Your task to perform on an android device: Open Chrome and go to settings Image 0: 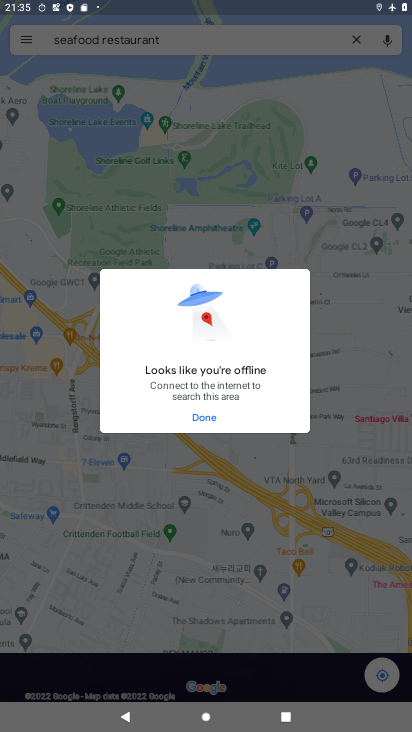
Step 0: click (202, 192)
Your task to perform on an android device: Open Chrome and go to settings Image 1: 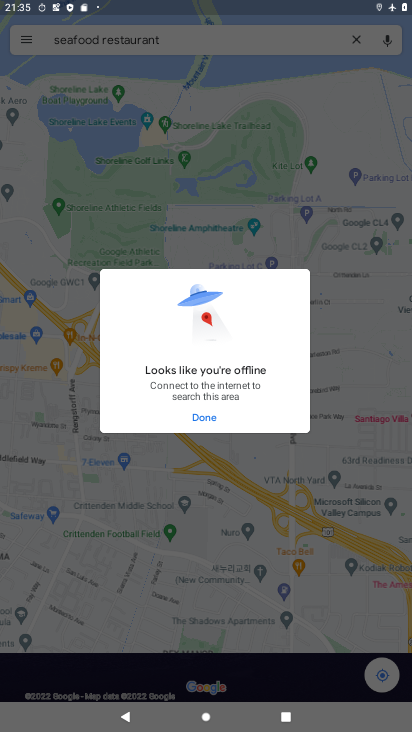
Step 1: drag from (197, 103) to (258, 89)
Your task to perform on an android device: Open Chrome and go to settings Image 2: 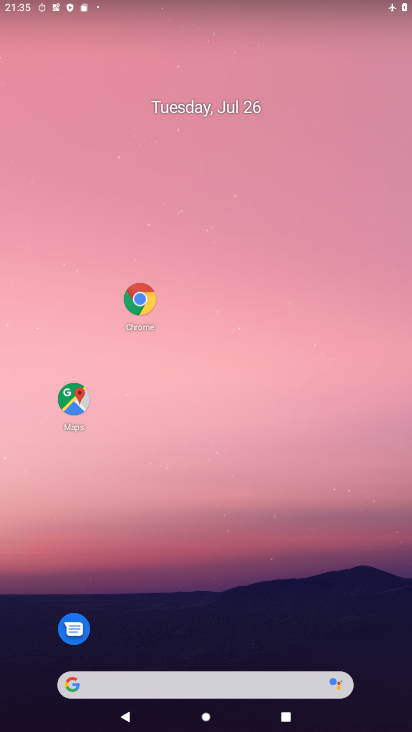
Step 2: click (231, 203)
Your task to perform on an android device: Open Chrome and go to settings Image 3: 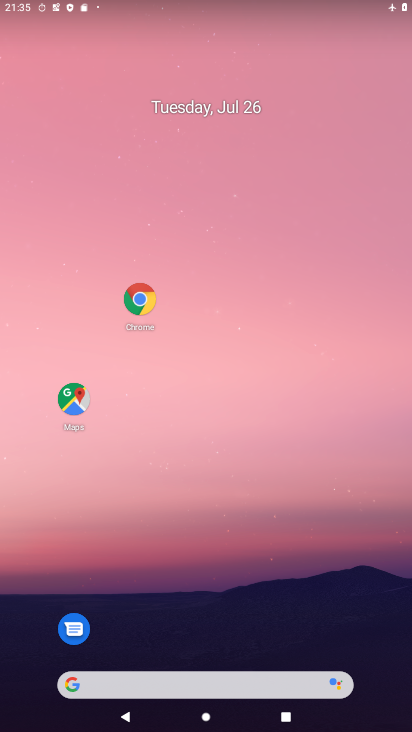
Step 3: drag from (147, 182) to (155, 35)
Your task to perform on an android device: Open Chrome and go to settings Image 4: 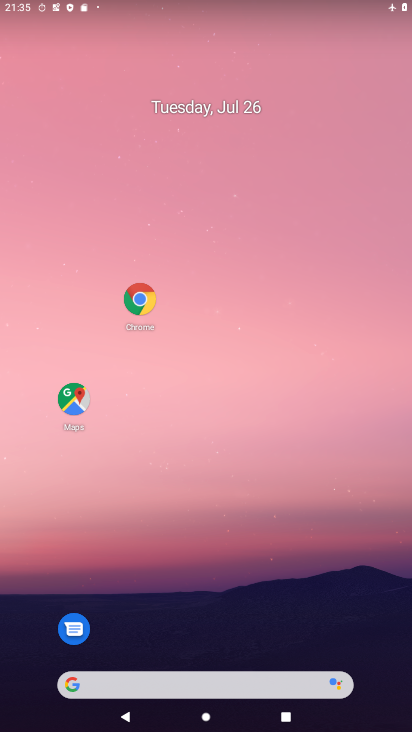
Step 4: drag from (234, 117) to (234, 50)
Your task to perform on an android device: Open Chrome and go to settings Image 5: 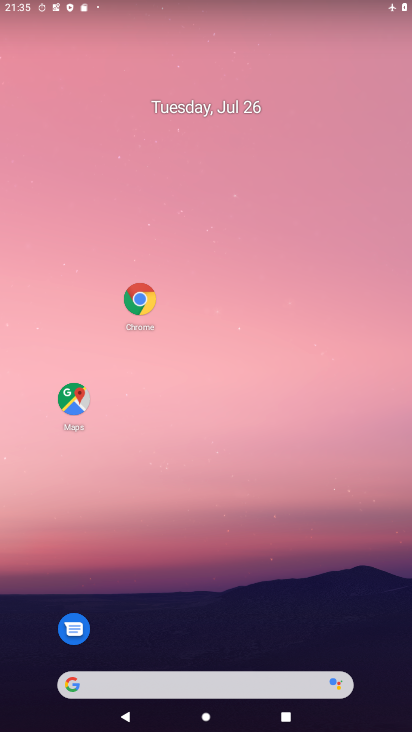
Step 5: click (185, 144)
Your task to perform on an android device: Open Chrome and go to settings Image 6: 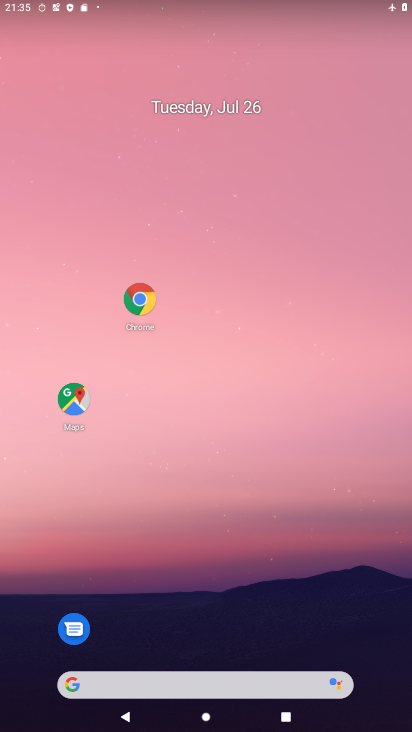
Step 6: drag from (215, 236) to (202, 36)
Your task to perform on an android device: Open Chrome and go to settings Image 7: 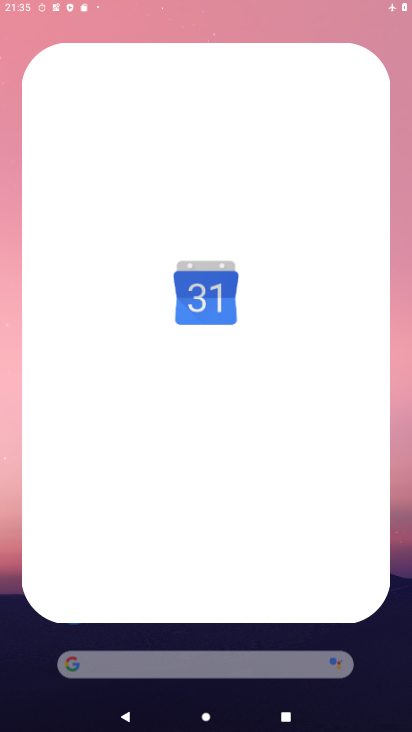
Step 7: drag from (247, 98) to (242, 25)
Your task to perform on an android device: Open Chrome and go to settings Image 8: 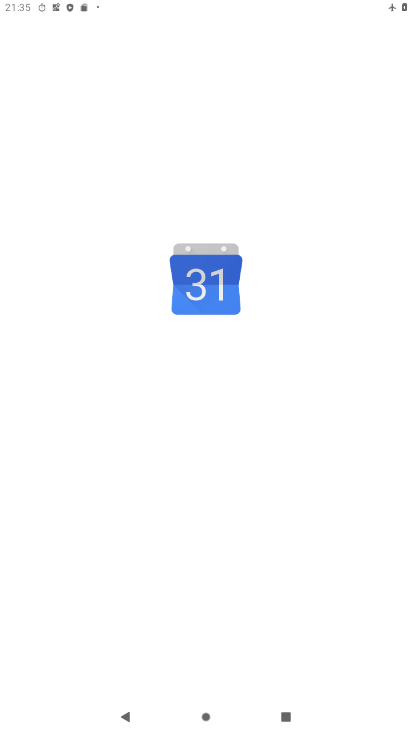
Step 8: drag from (221, 281) to (187, 30)
Your task to perform on an android device: Open Chrome and go to settings Image 9: 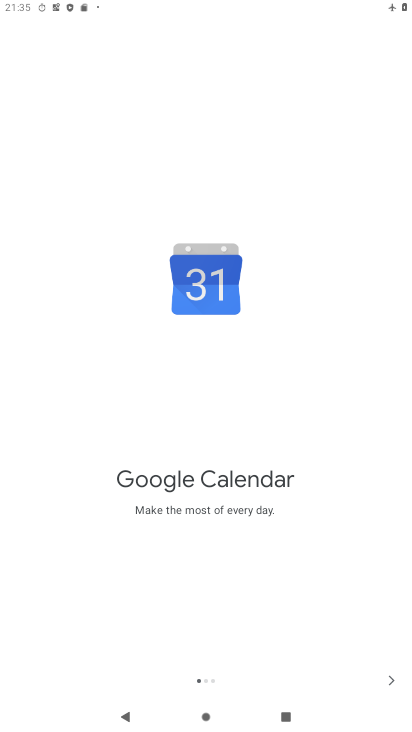
Step 9: press back button
Your task to perform on an android device: Open Chrome and go to settings Image 10: 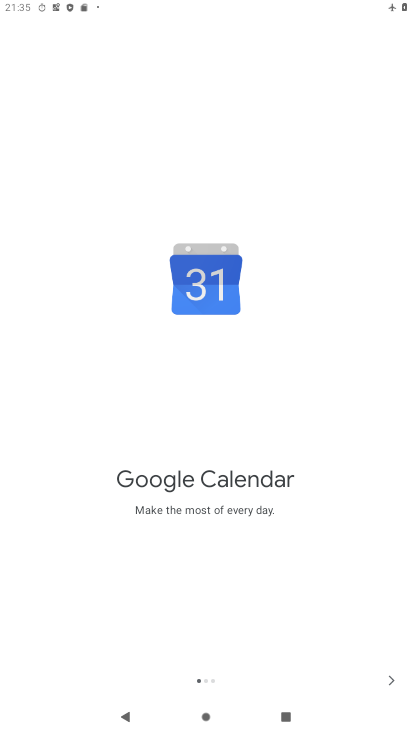
Step 10: press back button
Your task to perform on an android device: Open Chrome and go to settings Image 11: 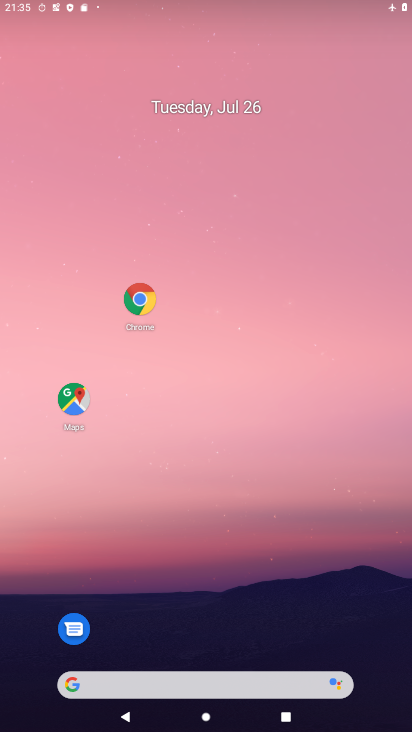
Step 11: click (383, 689)
Your task to perform on an android device: Open Chrome and go to settings Image 12: 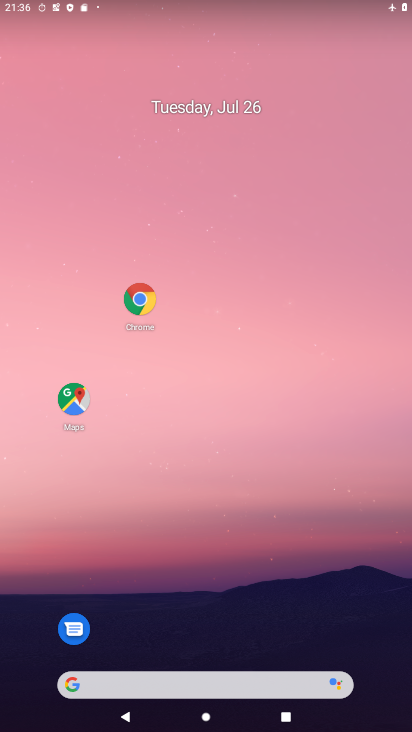
Step 12: click (383, 689)
Your task to perform on an android device: Open Chrome and go to settings Image 13: 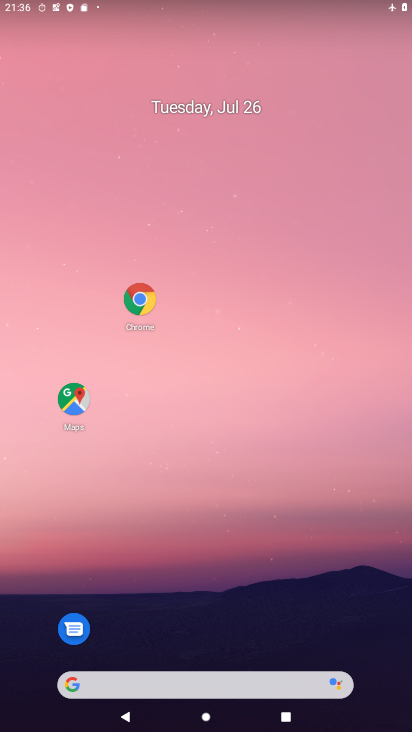
Step 13: click (383, 689)
Your task to perform on an android device: Open Chrome and go to settings Image 14: 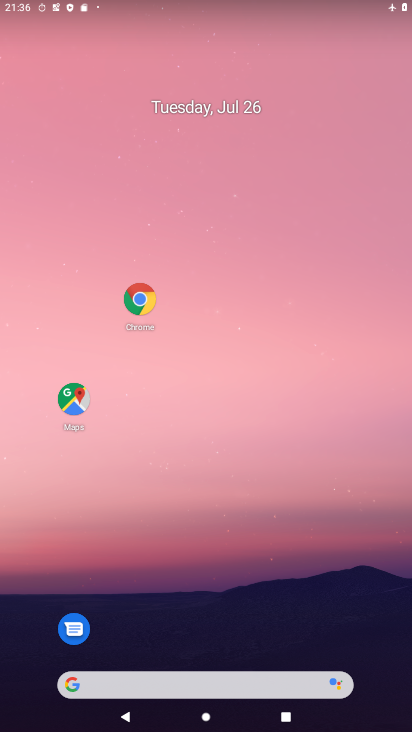
Step 14: drag from (107, 199) to (97, 73)
Your task to perform on an android device: Open Chrome and go to settings Image 15: 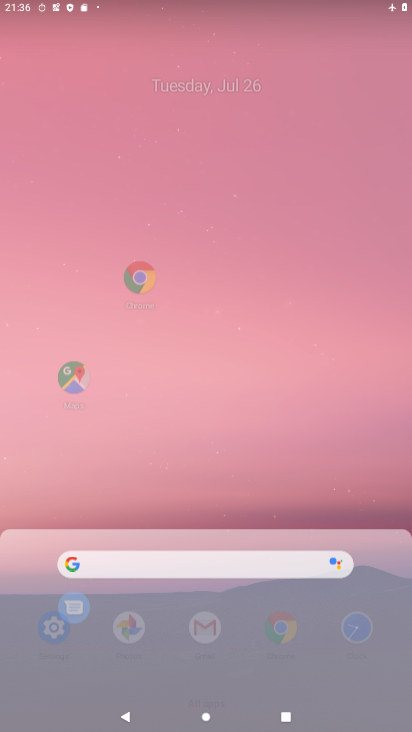
Step 15: click (206, 155)
Your task to perform on an android device: Open Chrome and go to settings Image 16: 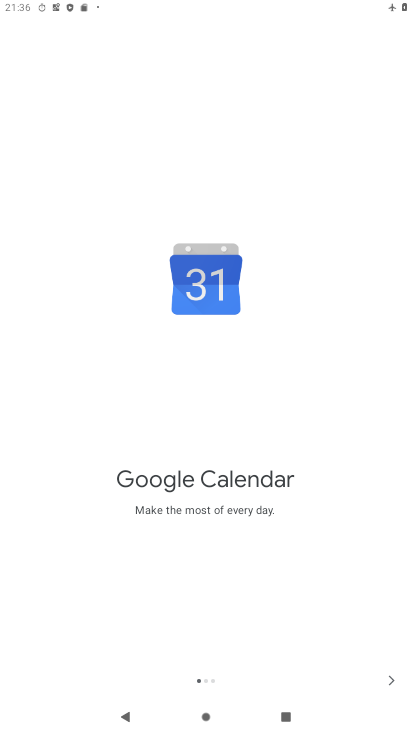
Step 16: click (385, 683)
Your task to perform on an android device: Open Chrome and go to settings Image 17: 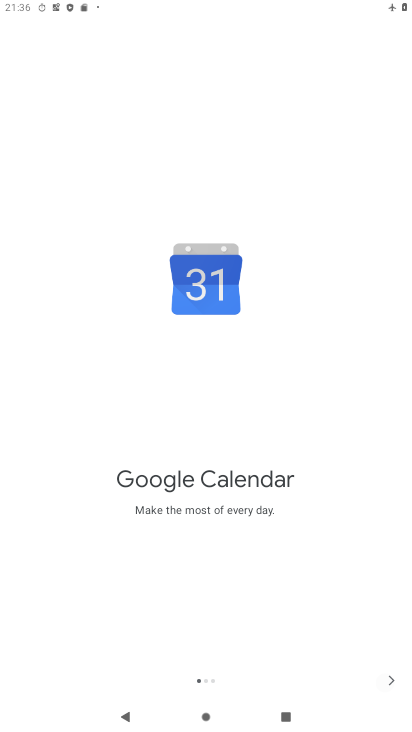
Step 17: click (384, 682)
Your task to perform on an android device: Open Chrome and go to settings Image 18: 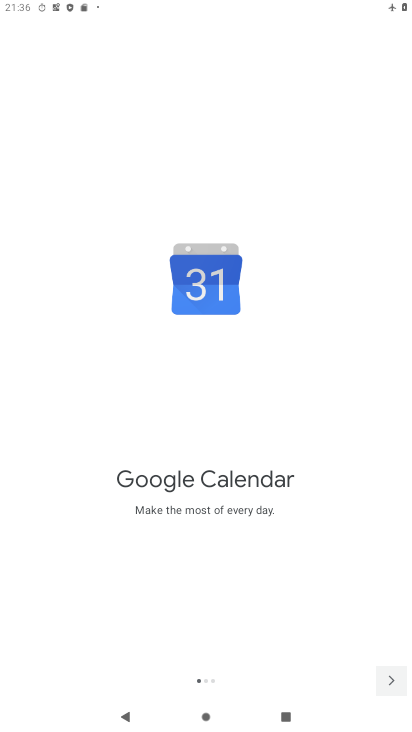
Step 18: click (385, 681)
Your task to perform on an android device: Open Chrome and go to settings Image 19: 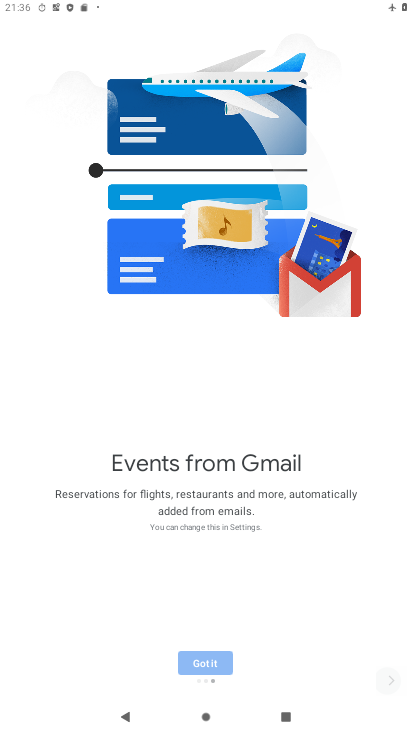
Step 19: click (386, 680)
Your task to perform on an android device: Open Chrome and go to settings Image 20: 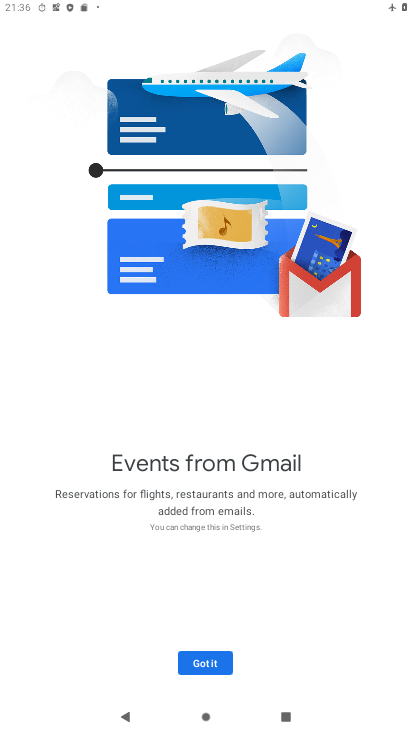
Step 20: click (393, 670)
Your task to perform on an android device: Open Chrome and go to settings Image 21: 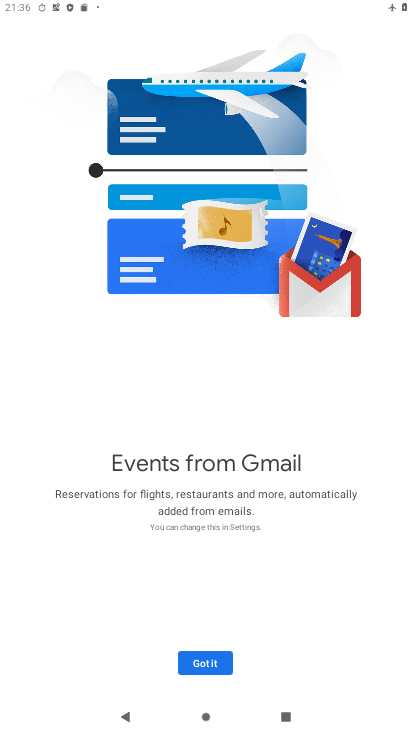
Step 21: click (212, 656)
Your task to perform on an android device: Open Chrome and go to settings Image 22: 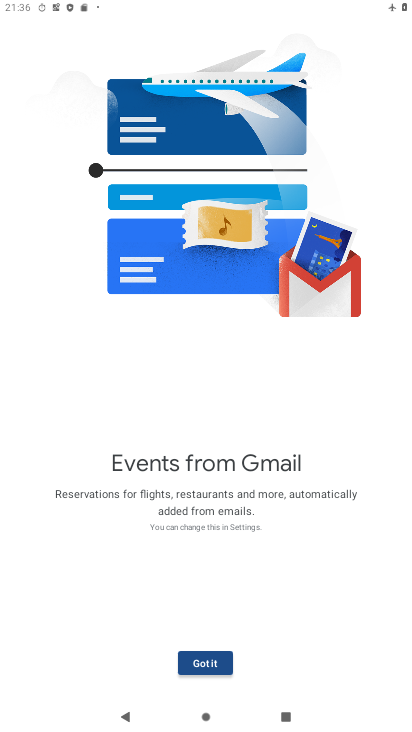
Step 22: click (211, 656)
Your task to perform on an android device: Open Chrome and go to settings Image 23: 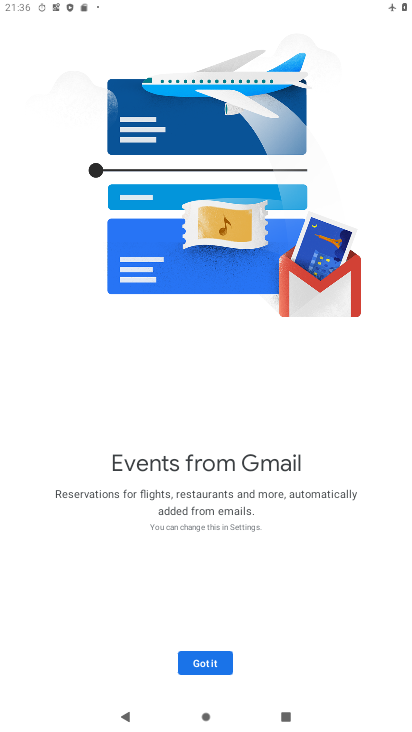
Step 23: click (211, 656)
Your task to perform on an android device: Open Chrome and go to settings Image 24: 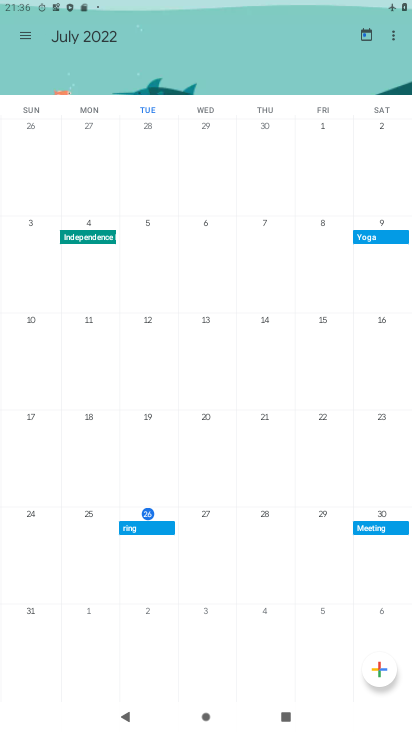
Step 24: press back button
Your task to perform on an android device: Open Chrome and go to settings Image 25: 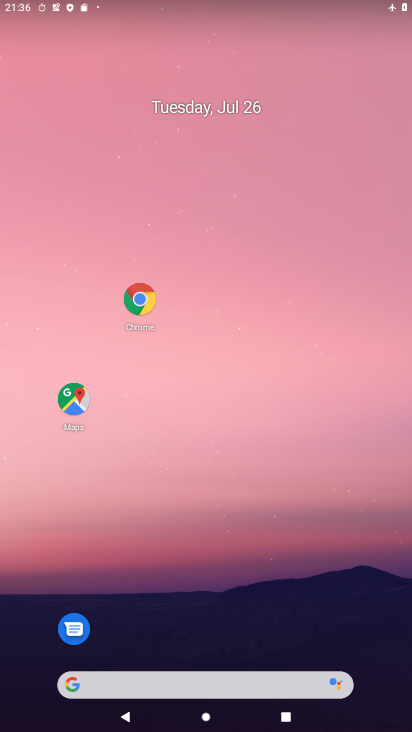
Step 25: click (177, 96)
Your task to perform on an android device: Open Chrome and go to settings Image 26: 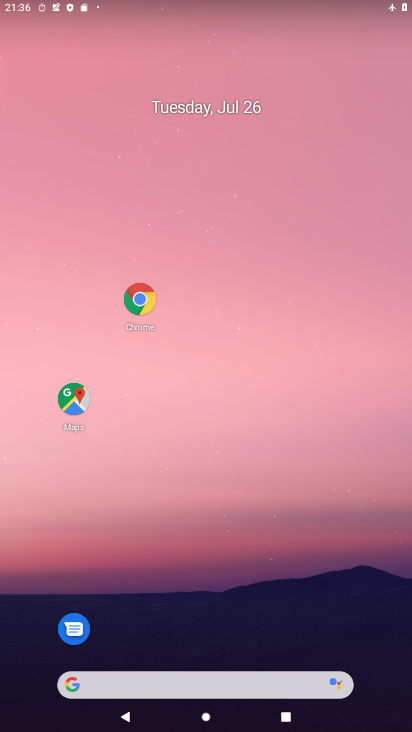
Step 26: drag from (217, 332) to (156, 10)
Your task to perform on an android device: Open Chrome and go to settings Image 27: 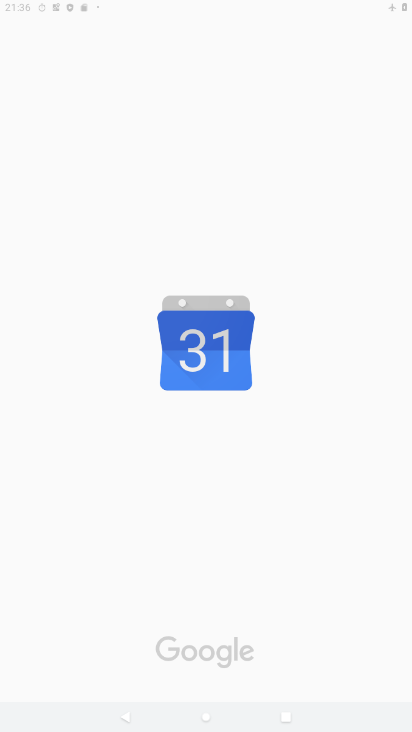
Step 27: drag from (253, 483) to (187, 34)
Your task to perform on an android device: Open Chrome and go to settings Image 28: 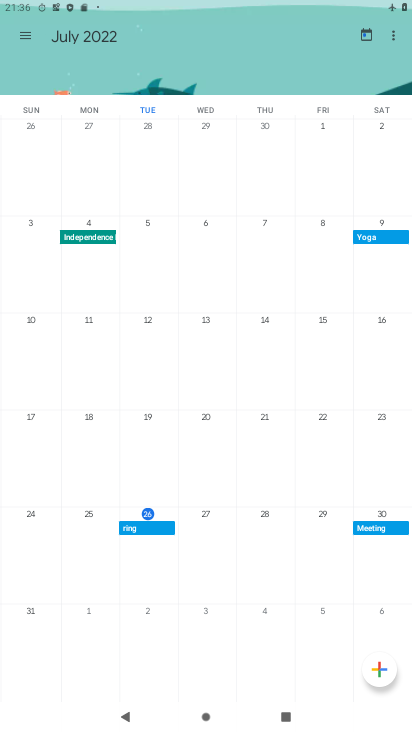
Step 28: click (150, 71)
Your task to perform on an android device: Open Chrome and go to settings Image 29: 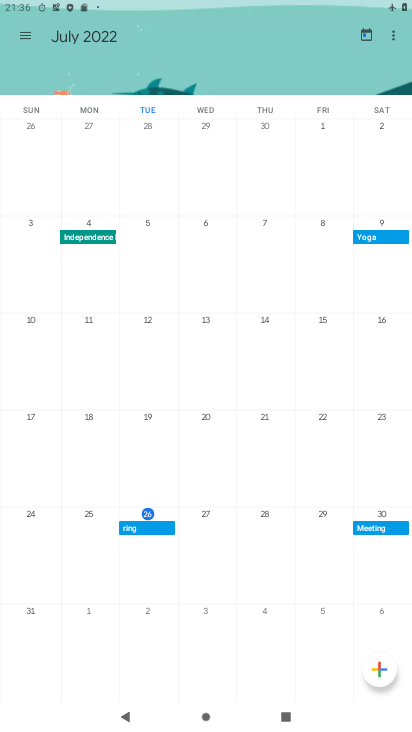
Step 29: press back button
Your task to perform on an android device: Open Chrome and go to settings Image 30: 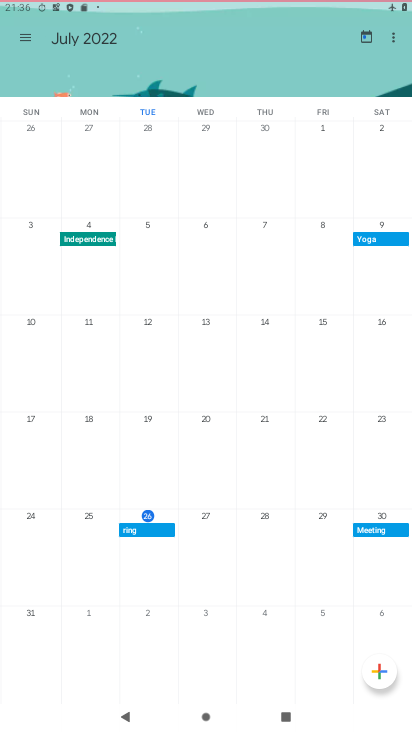
Step 30: press back button
Your task to perform on an android device: Open Chrome and go to settings Image 31: 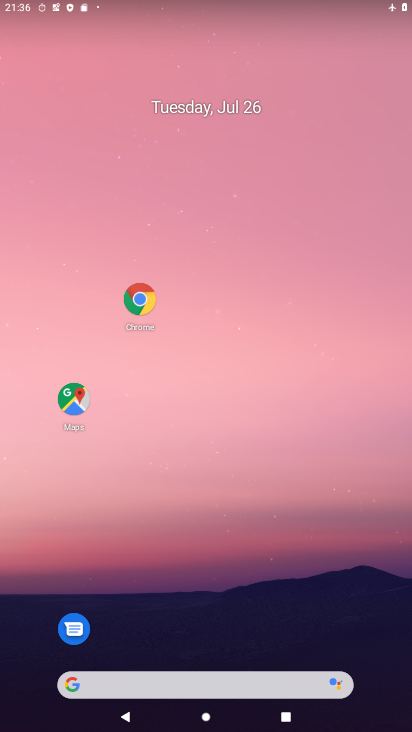
Step 31: drag from (284, 508) to (188, 147)
Your task to perform on an android device: Open Chrome and go to settings Image 32: 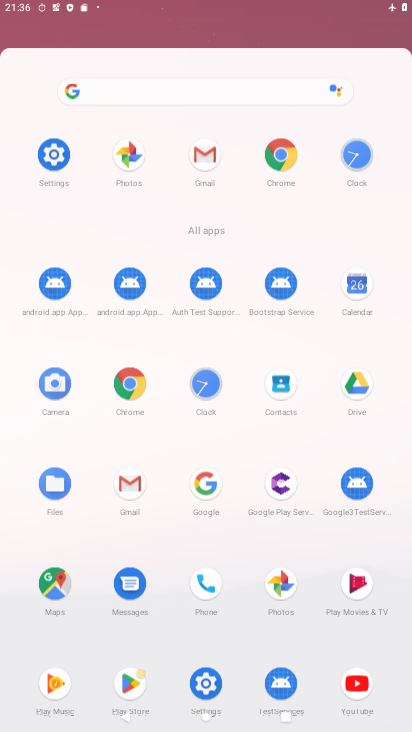
Step 32: drag from (263, 397) to (253, 105)
Your task to perform on an android device: Open Chrome and go to settings Image 33: 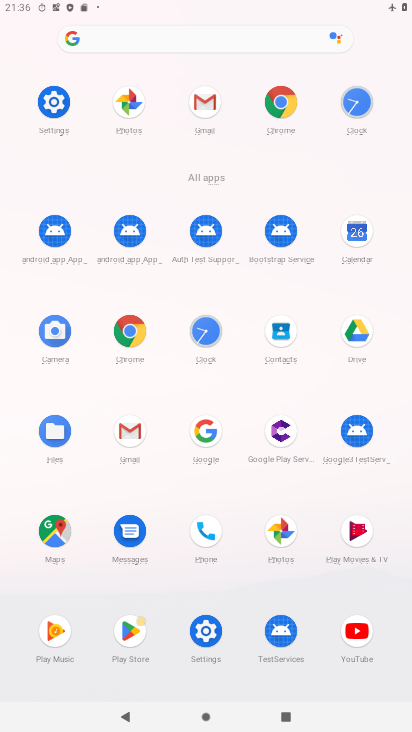
Step 33: drag from (227, 336) to (291, 1)
Your task to perform on an android device: Open Chrome and go to settings Image 34: 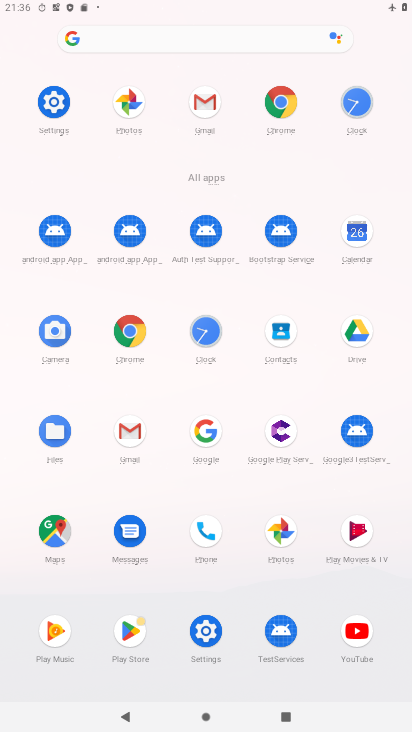
Step 34: click (204, 640)
Your task to perform on an android device: Open Chrome and go to settings Image 35: 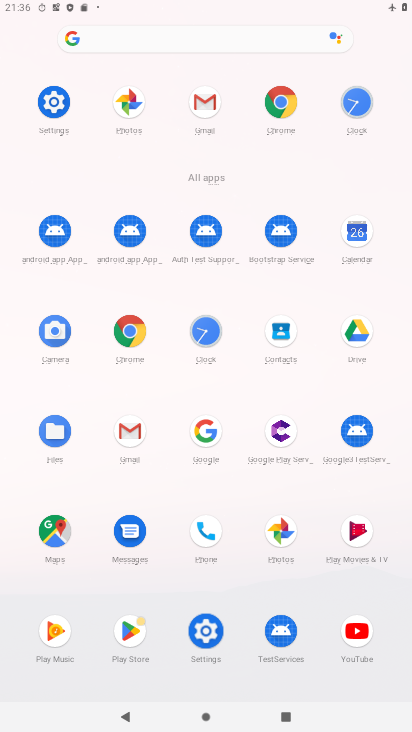
Step 35: click (204, 636)
Your task to perform on an android device: Open Chrome and go to settings Image 36: 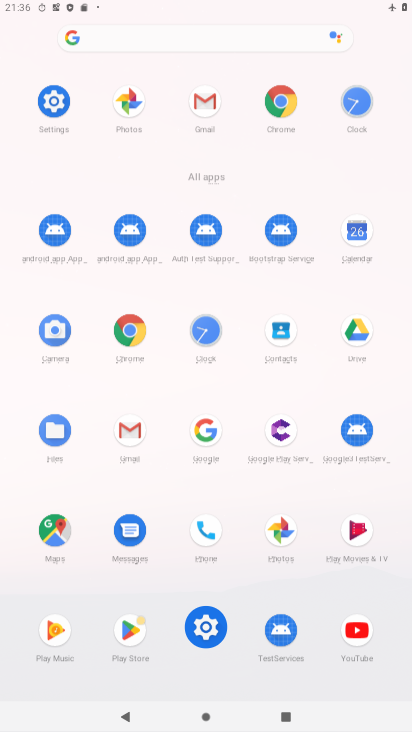
Step 36: click (204, 636)
Your task to perform on an android device: Open Chrome and go to settings Image 37: 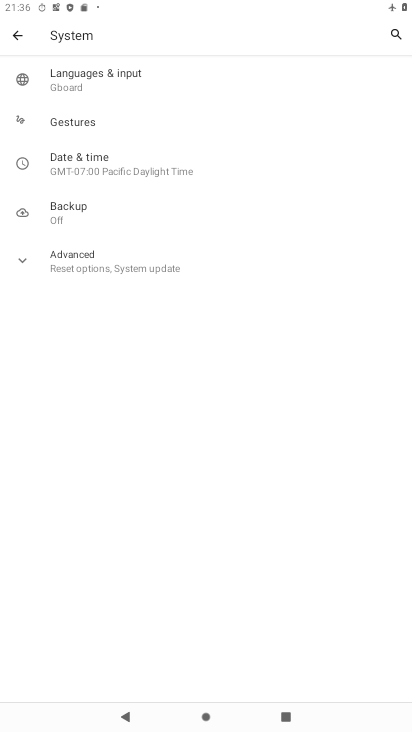
Step 37: click (16, 38)
Your task to perform on an android device: Open Chrome and go to settings Image 38: 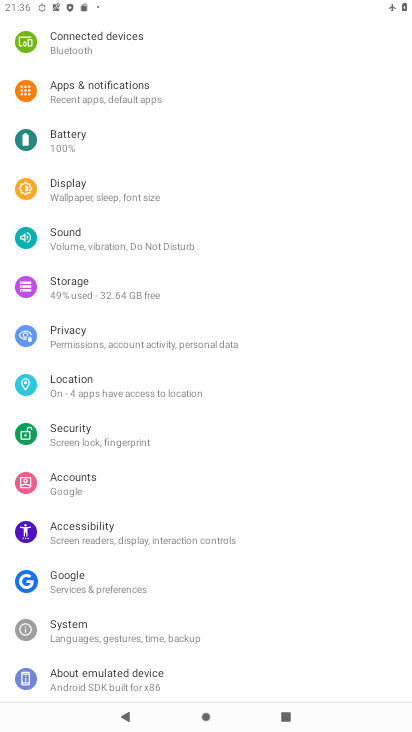
Step 38: press back button
Your task to perform on an android device: Open Chrome and go to settings Image 39: 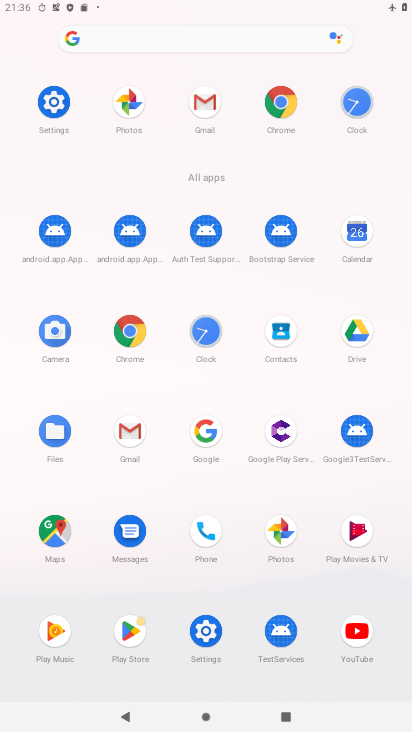
Step 39: click (283, 96)
Your task to perform on an android device: Open Chrome and go to settings Image 40: 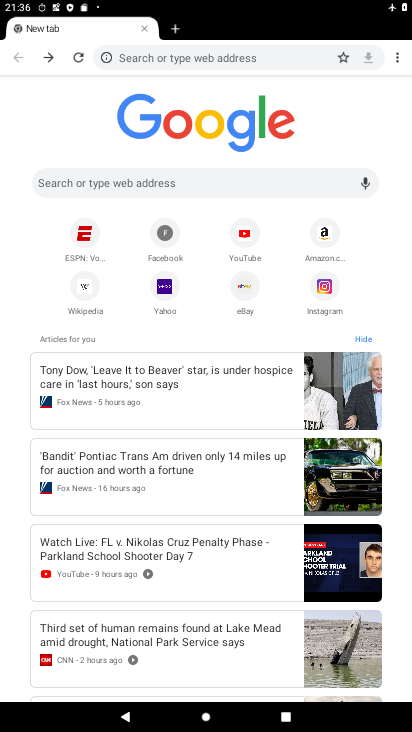
Step 40: click (282, 89)
Your task to perform on an android device: Open Chrome and go to settings Image 41: 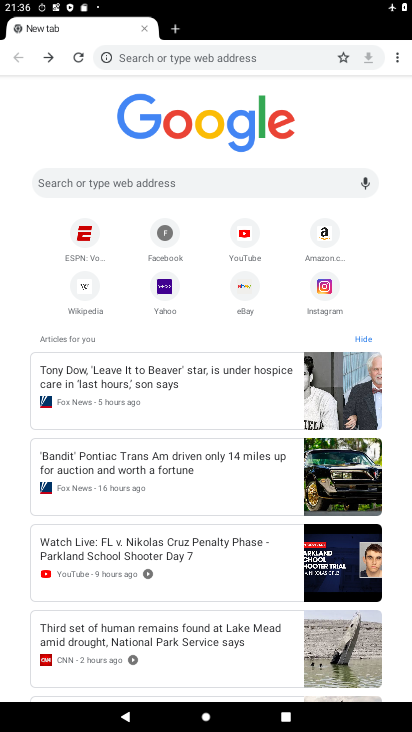
Step 41: click (397, 54)
Your task to perform on an android device: Open Chrome and go to settings Image 42: 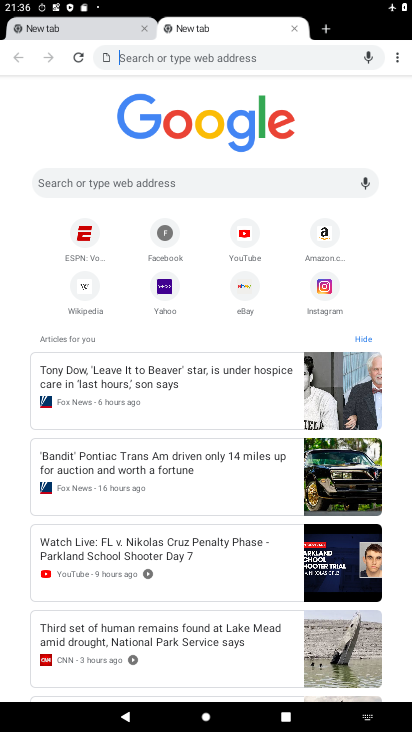
Step 42: click (395, 52)
Your task to perform on an android device: Open Chrome and go to settings Image 43: 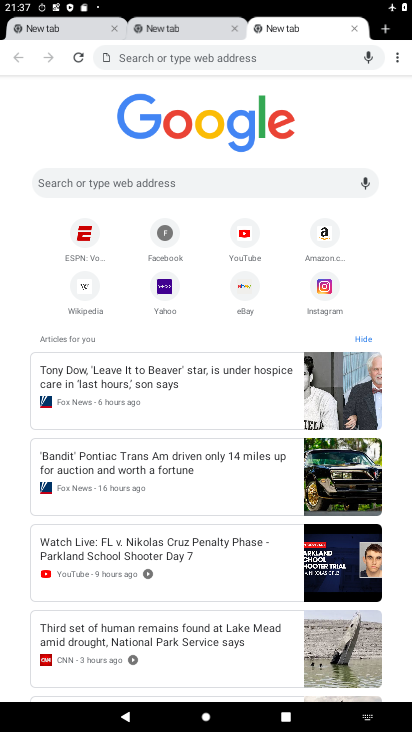
Step 43: drag from (398, 50) to (282, 256)
Your task to perform on an android device: Open Chrome and go to settings Image 44: 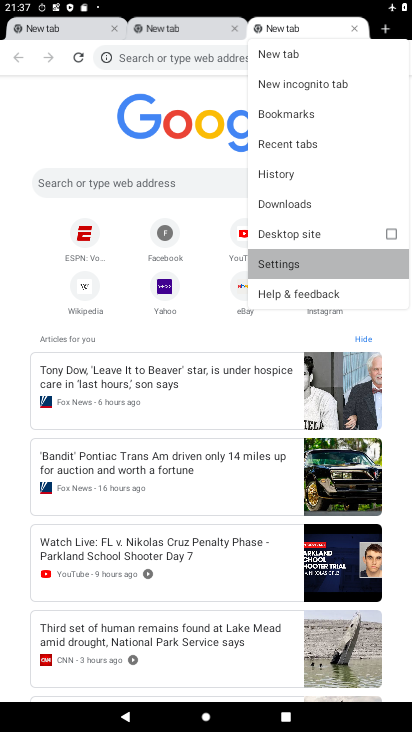
Step 44: click (291, 254)
Your task to perform on an android device: Open Chrome and go to settings Image 45: 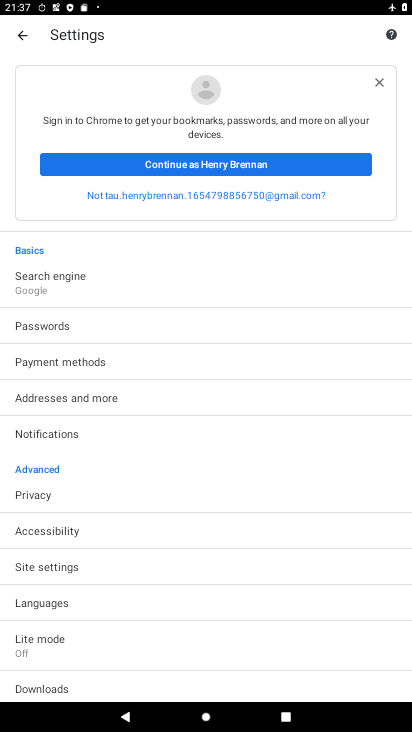
Step 45: task complete